Your task to perform on an android device: turn on javascript in the chrome app Image 0: 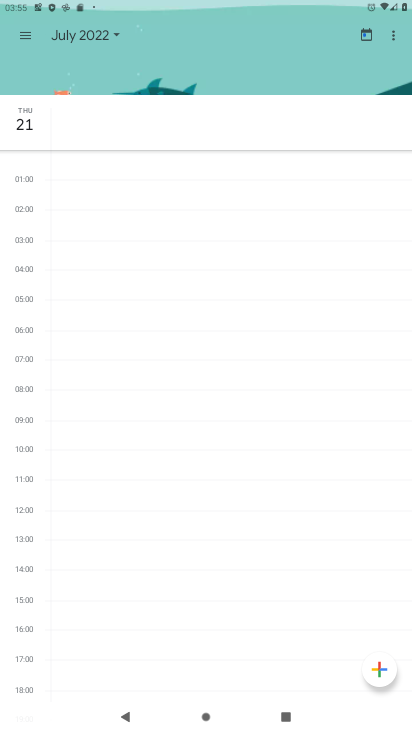
Step 0: press home button
Your task to perform on an android device: turn on javascript in the chrome app Image 1: 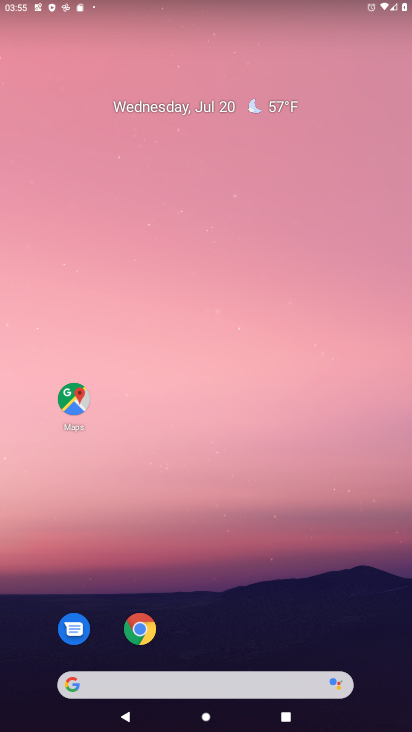
Step 1: click (138, 632)
Your task to perform on an android device: turn on javascript in the chrome app Image 2: 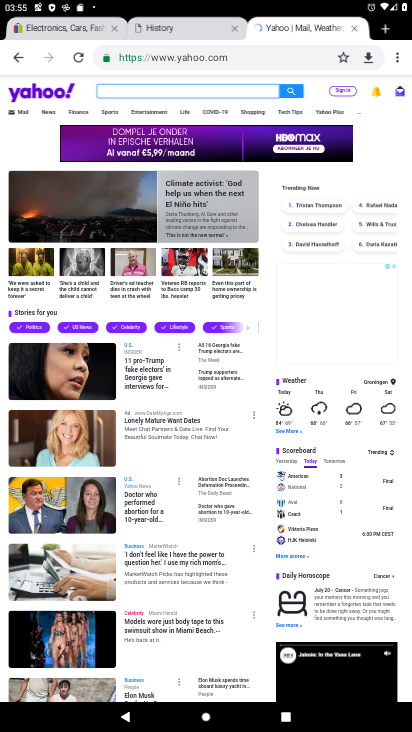
Step 2: click (394, 64)
Your task to perform on an android device: turn on javascript in the chrome app Image 3: 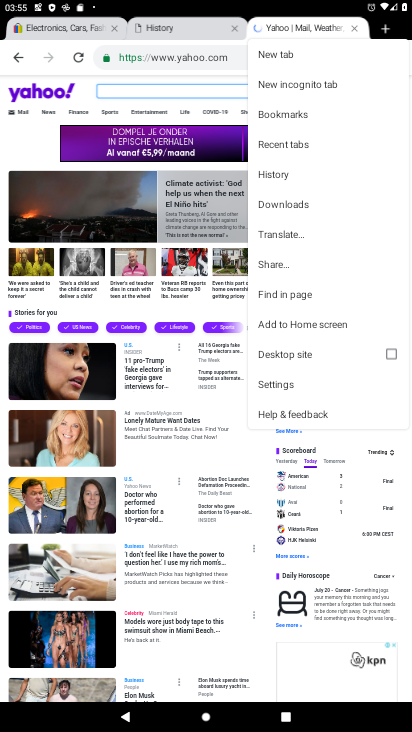
Step 3: click (282, 381)
Your task to perform on an android device: turn on javascript in the chrome app Image 4: 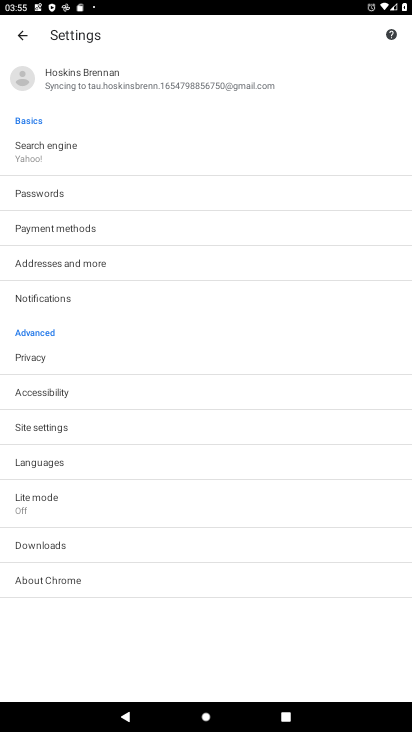
Step 4: click (31, 424)
Your task to perform on an android device: turn on javascript in the chrome app Image 5: 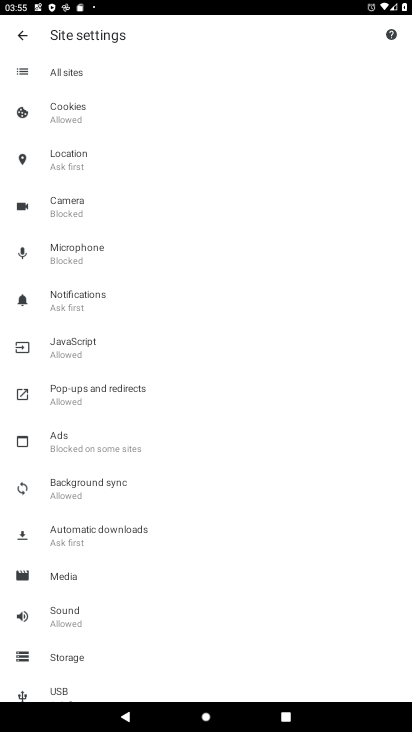
Step 5: click (63, 346)
Your task to perform on an android device: turn on javascript in the chrome app Image 6: 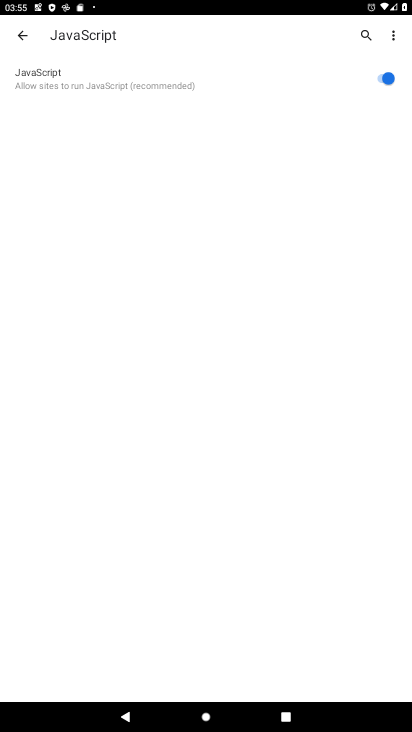
Step 6: task complete